Your task to perform on an android device: turn off translation in the chrome app Image 0: 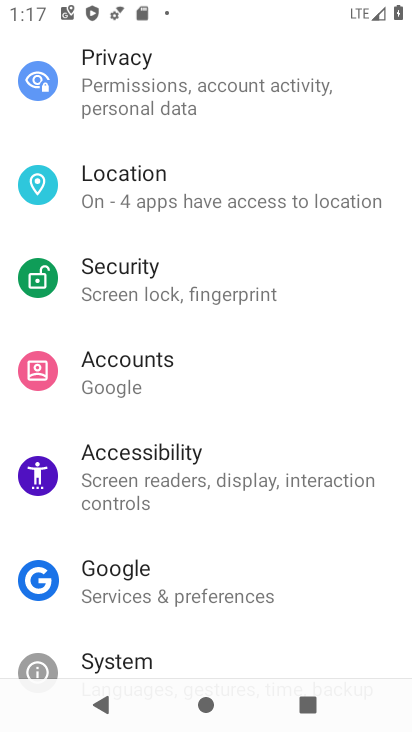
Step 0: press home button
Your task to perform on an android device: turn off translation in the chrome app Image 1: 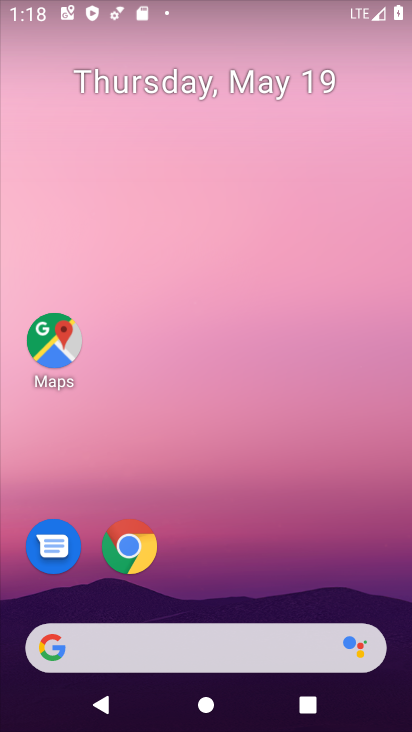
Step 1: click (136, 553)
Your task to perform on an android device: turn off translation in the chrome app Image 2: 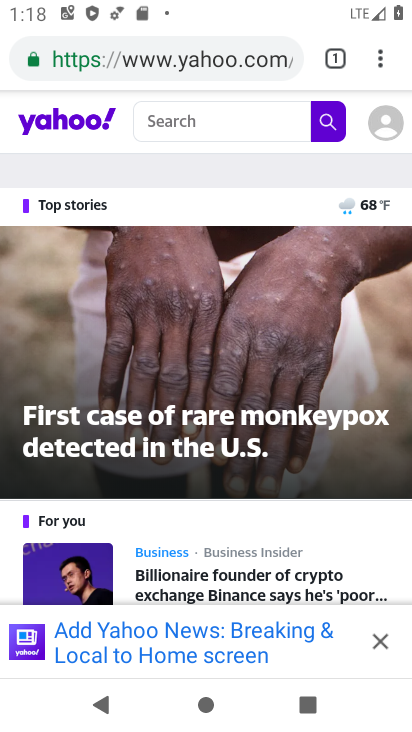
Step 2: click (376, 48)
Your task to perform on an android device: turn off translation in the chrome app Image 3: 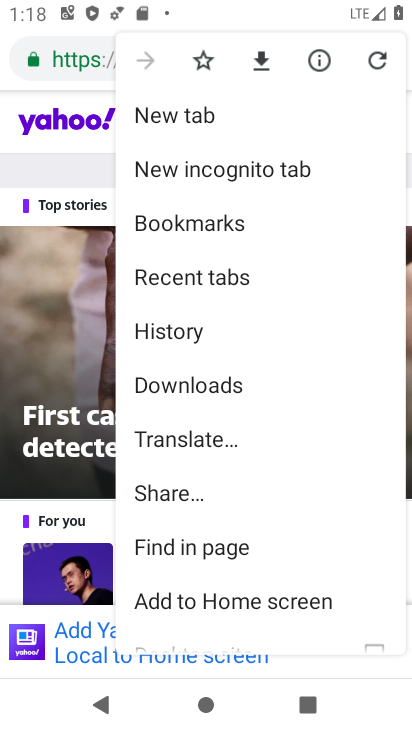
Step 3: drag from (200, 569) to (220, 78)
Your task to perform on an android device: turn off translation in the chrome app Image 4: 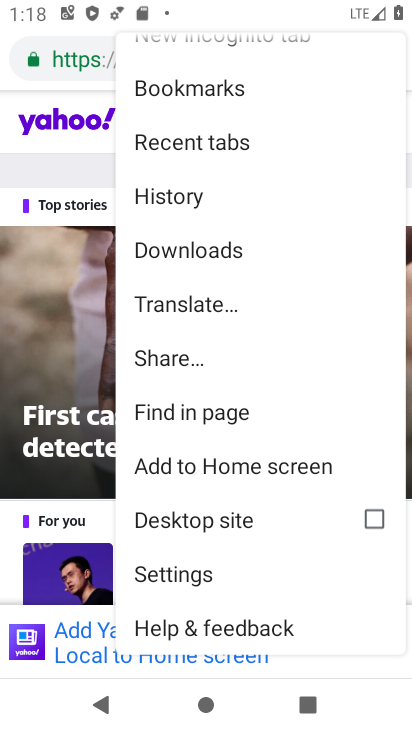
Step 4: click (196, 568)
Your task to perform on an android device: turn off translation in the chrome app Image 5: 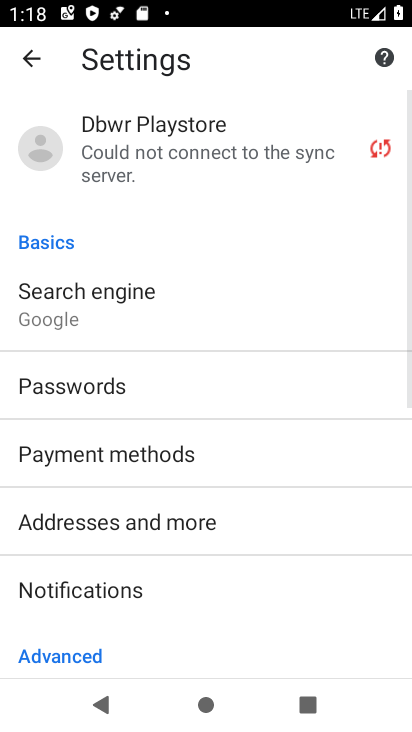
Step 5: drag from (52, 588) to (143, 15)
Your task to perform on an android device: turn off translation in the chrome app Image 6: 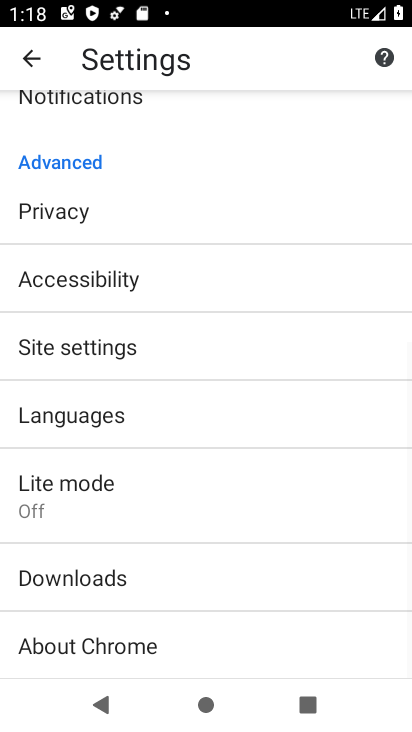
Step 6: click (111, 424)
Your task to perform on an android device: turn off translation in the chrome app Image 7: 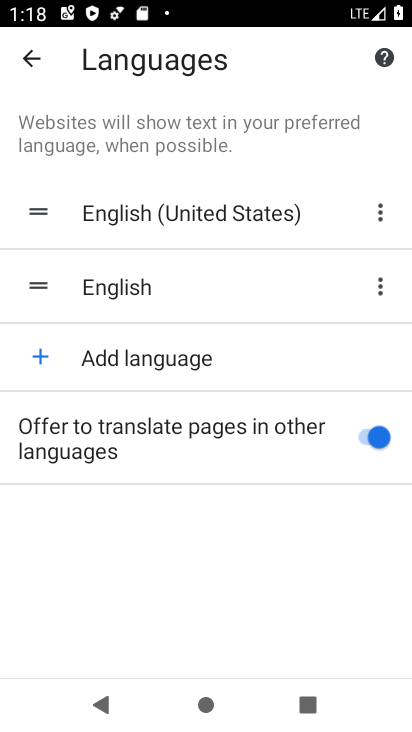
Step 7: click (370, 440)
Your task to perform on an android device: turn off translation in the chrome app Image 8: 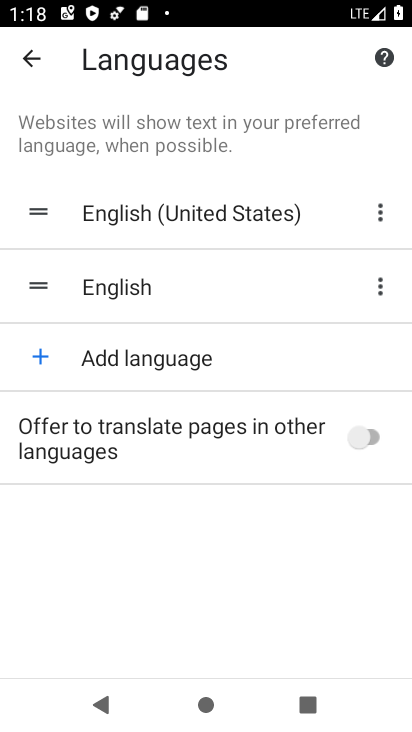
Step 8: task complete